Your task to perform on an android device: manage bookmarks in the chrome app Image 0: 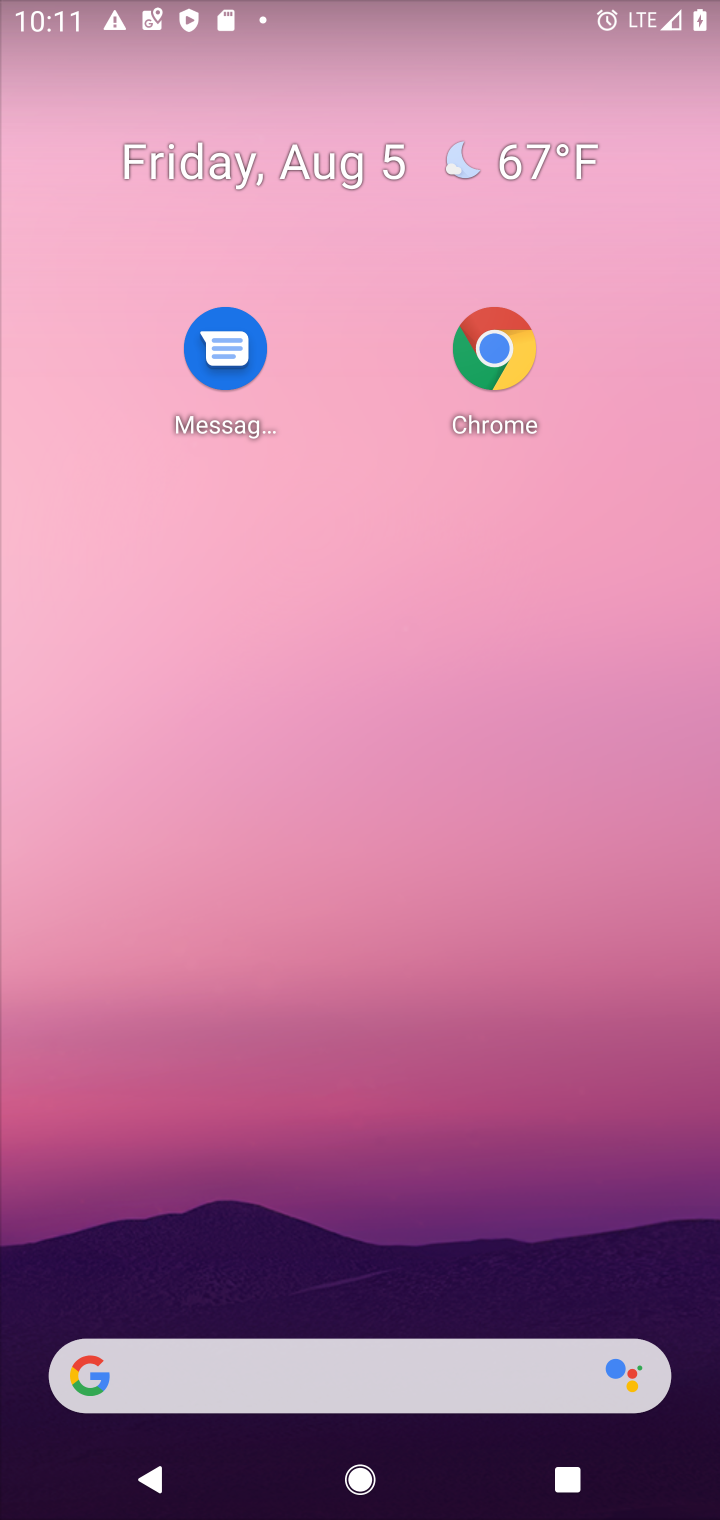
Step 0: press home button
Your task to perform on an android device: manage bookmarks in the chrome app Image 1: 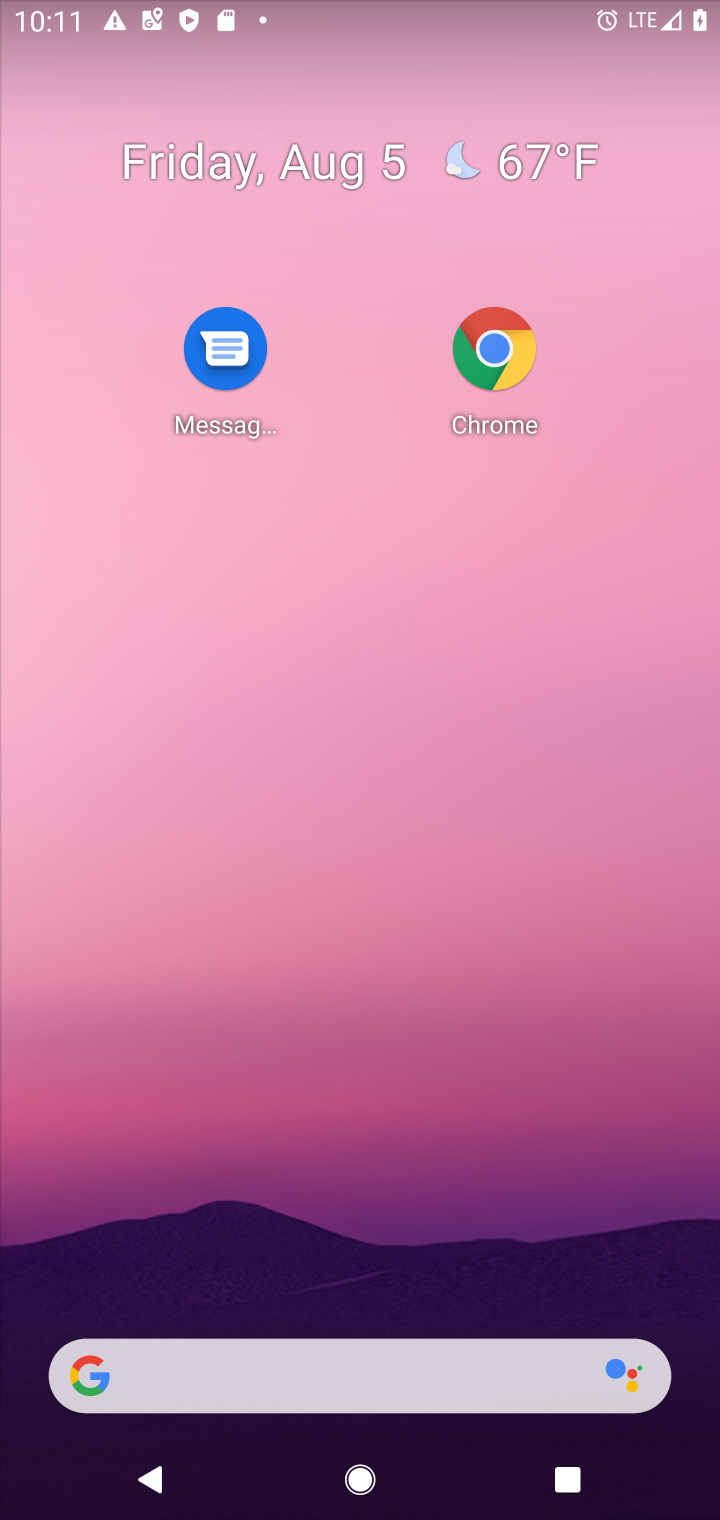
Step 1: drag from (476, 1424) to (412, 147)
Your task to perform on an android device: manage bookmarks in the chrome app Image 2: 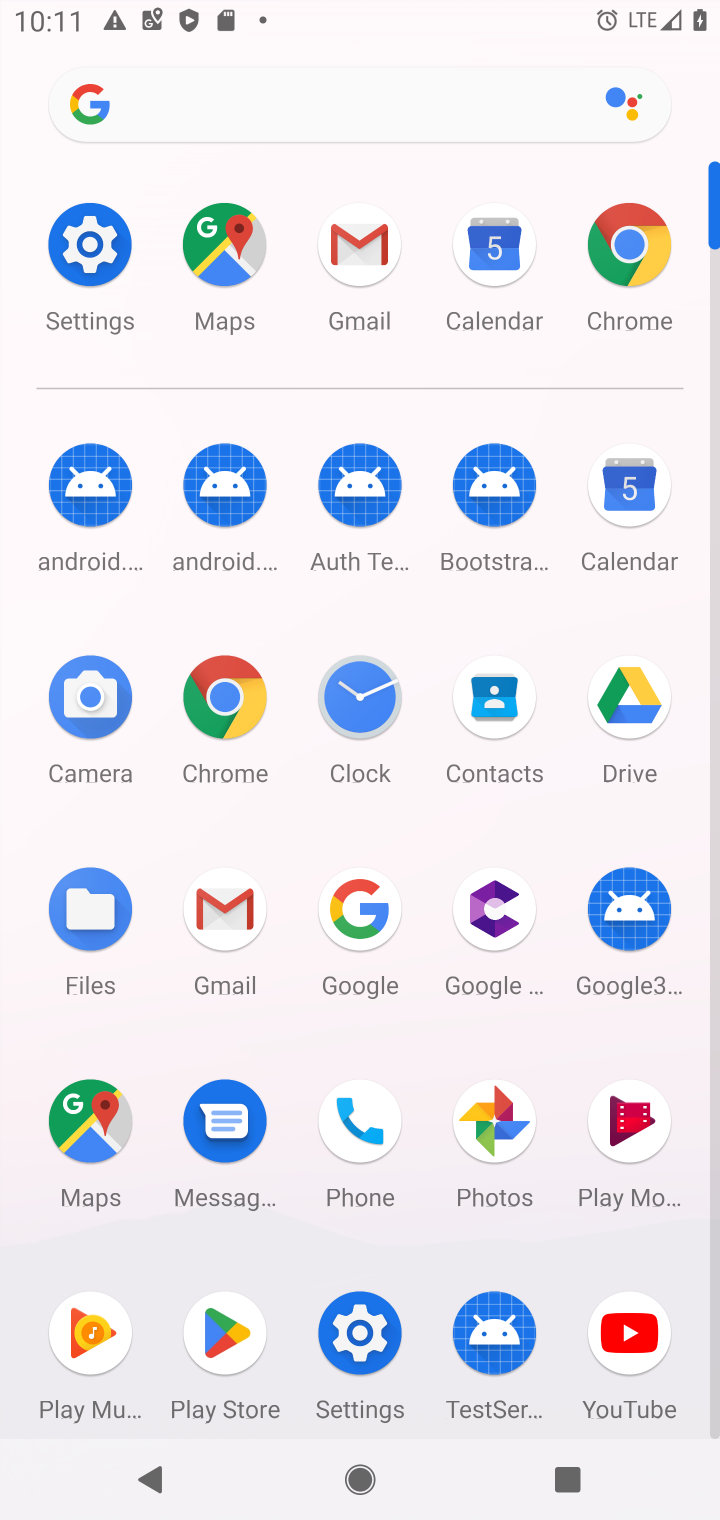
Step 2: click (630, 254)
Your task to perform on an android device: manage bookmarks in the chrome app Image 3: 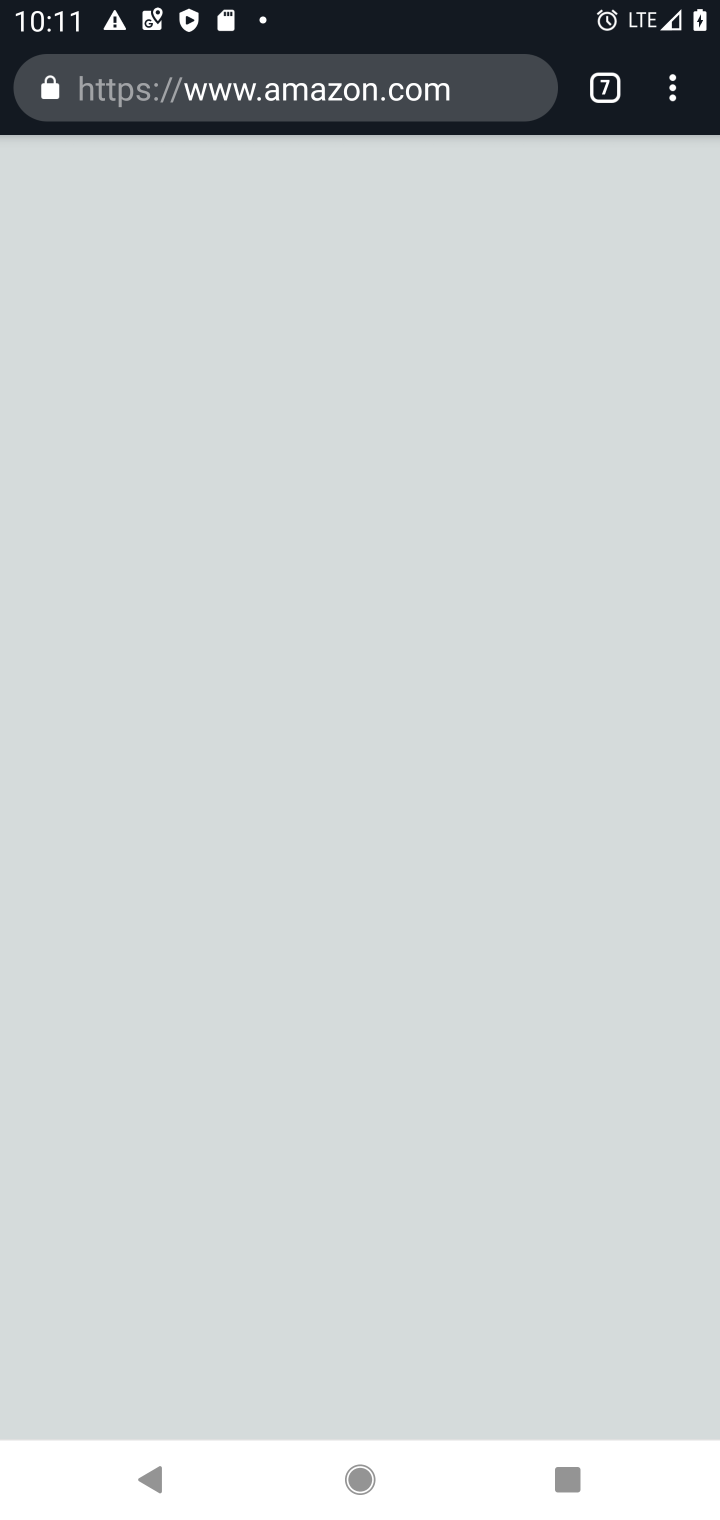
Step 3: click (673, 95)
Your task to perform on an android device: manage bookmarks in the chrome app Image 4: 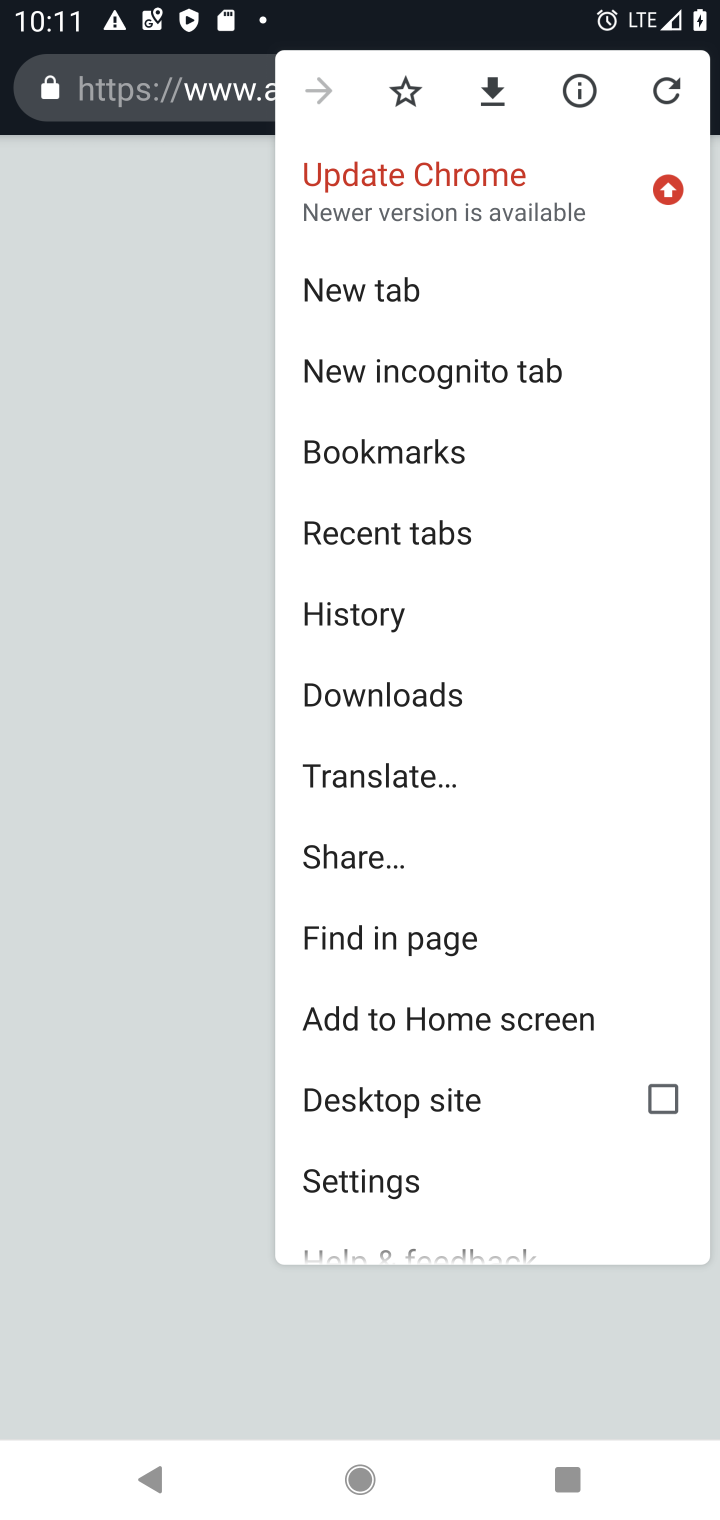
Step 4: click (422, 448)
Your task to perform on an android device: manage bookmarks in the chrome app Image 5: 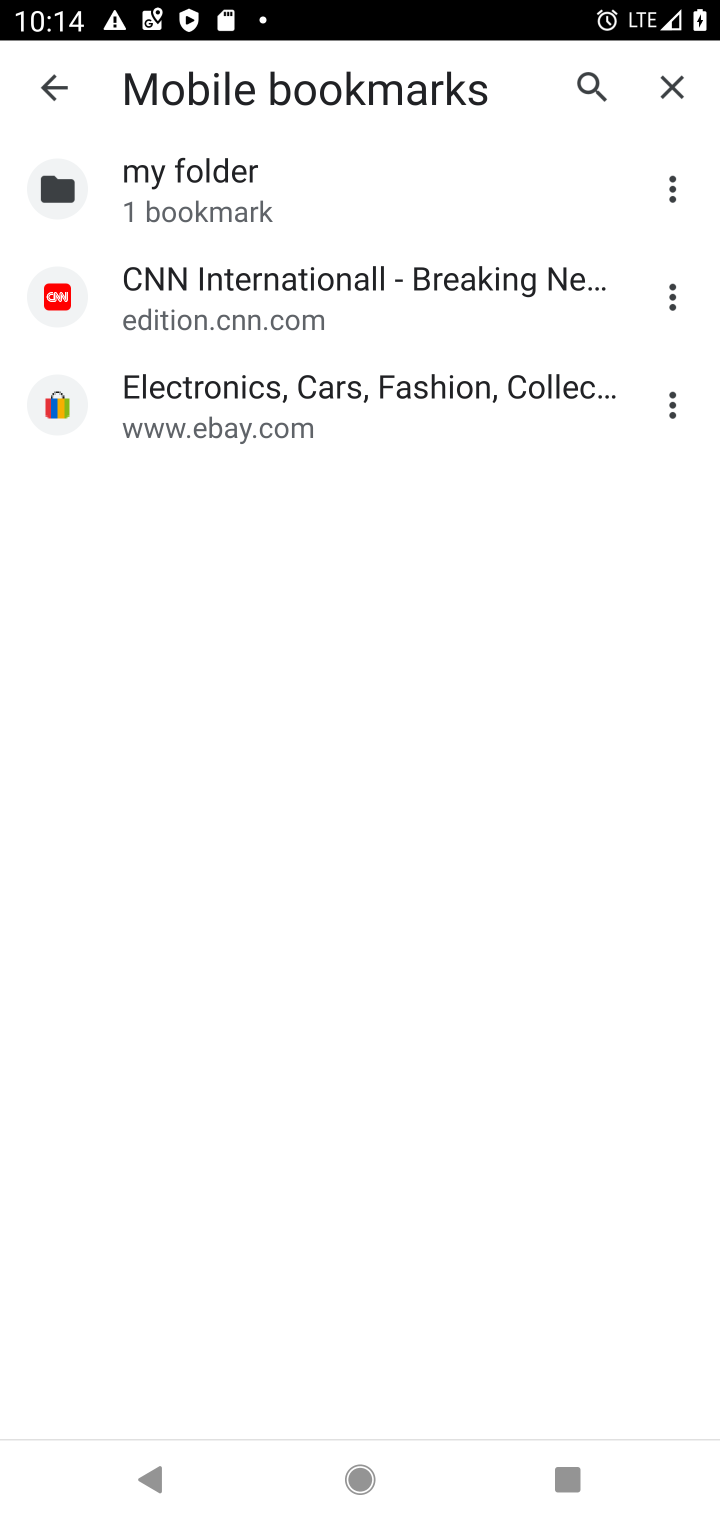
Step 5: task complete